Your task to perform on an android device: change the clock display to digital Image 0: 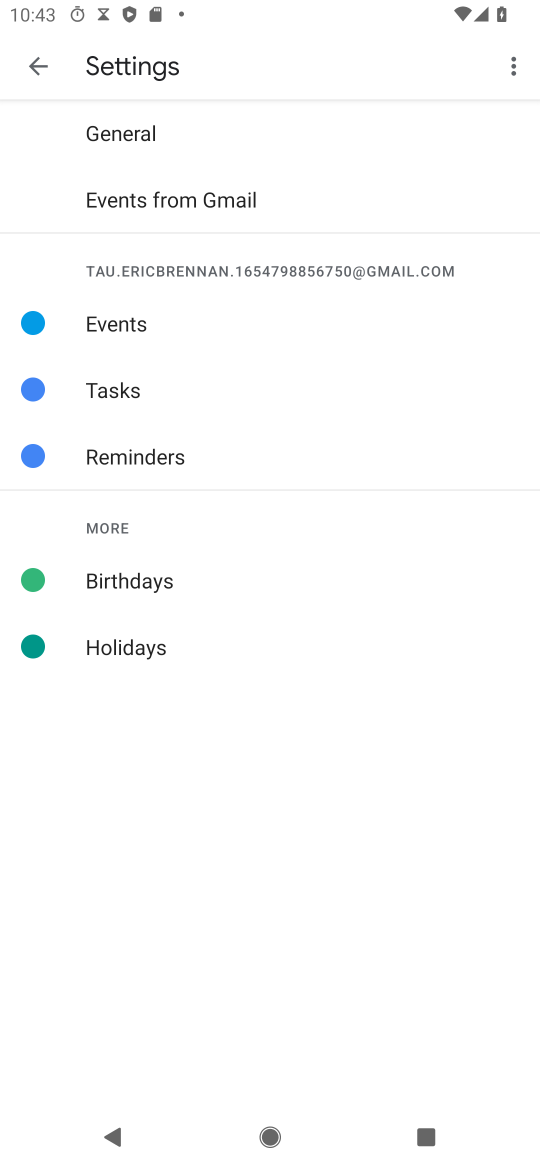
Step 0: press back button
Your task to perform on an android device: change the clock display to digital Image 1: 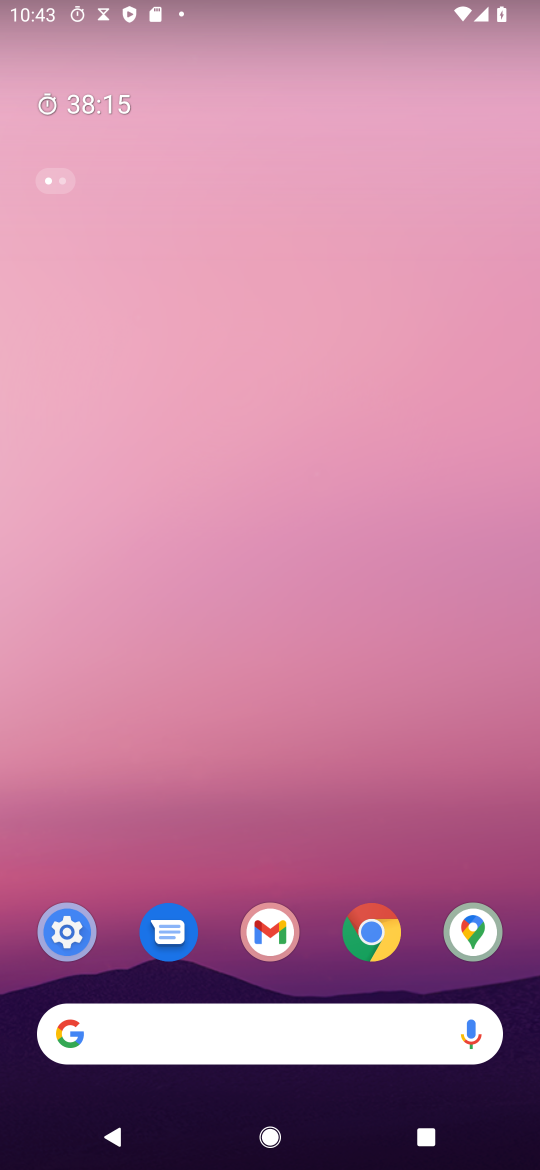
Step 1: drag from (315, 838) to (183, 99)
Your task to perform on an android device: change the clock display to digital Image 2: 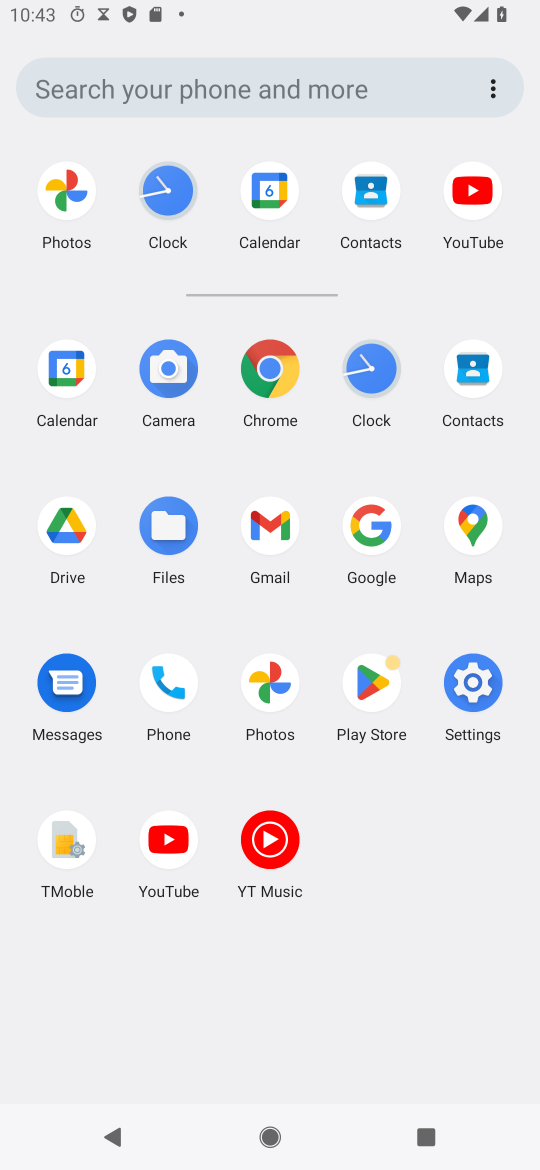
Step 2: click (385, 382)
Your task to perform on an android device: change the clock display to digital Image 3: 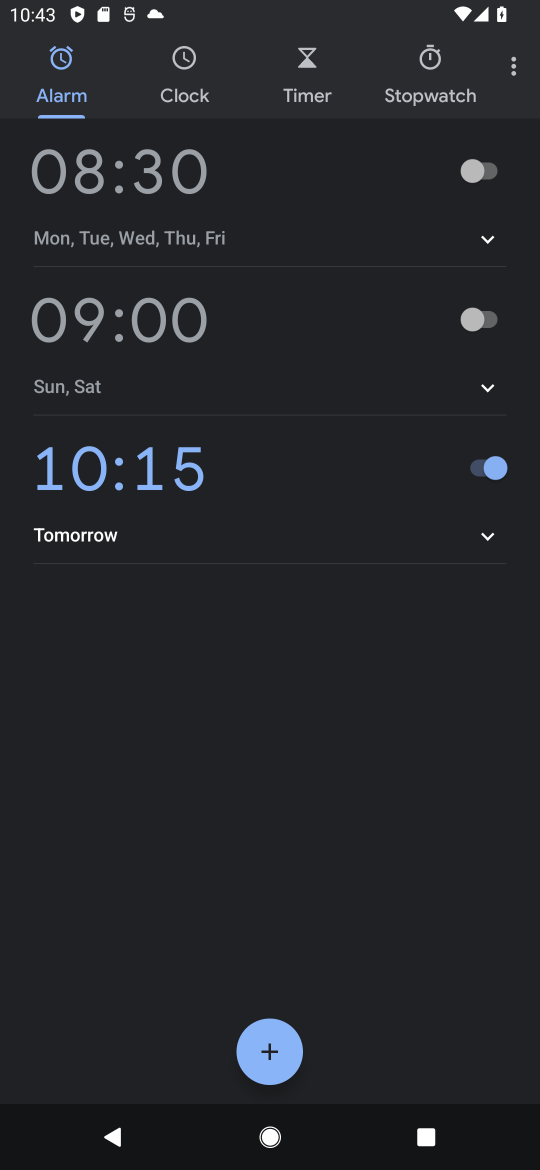
Step 3: click (533, 73)
Your task to perform on an android device: change the clock display to digital Image 4: 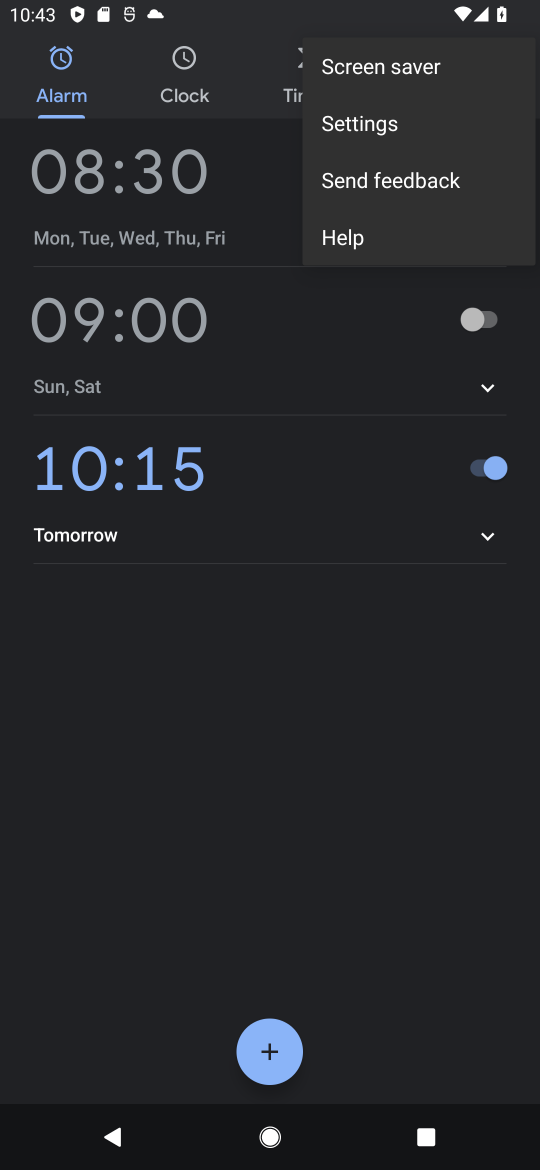
Step 4: click (393, 121)
Your task to perform on an android device: change the clock display to digital Image 5: 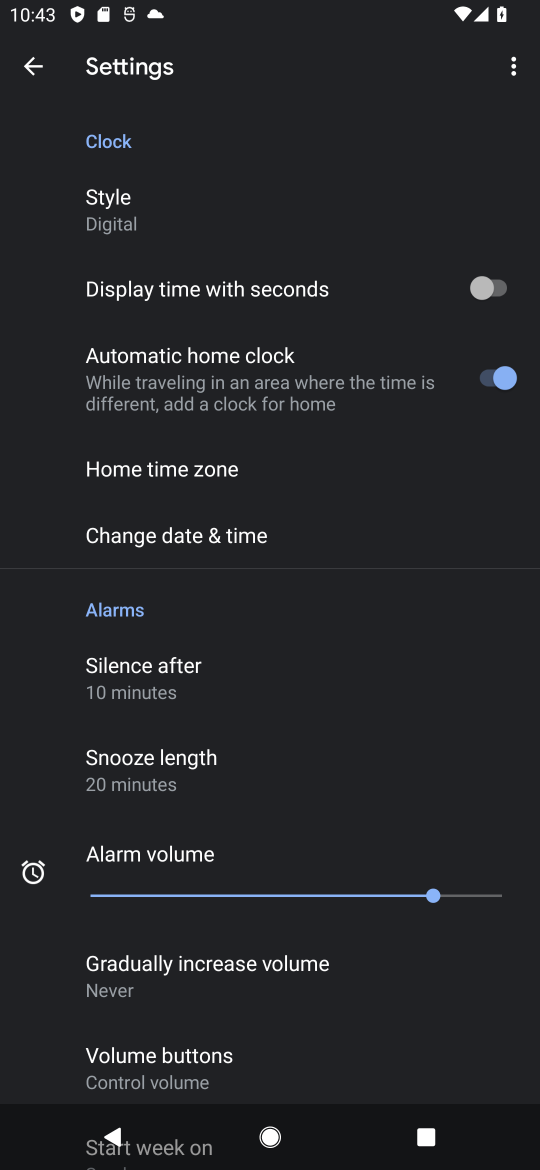
Step 5: click (252, 225)
Your task to perform on an android device: change the clock display to digital Image 6: 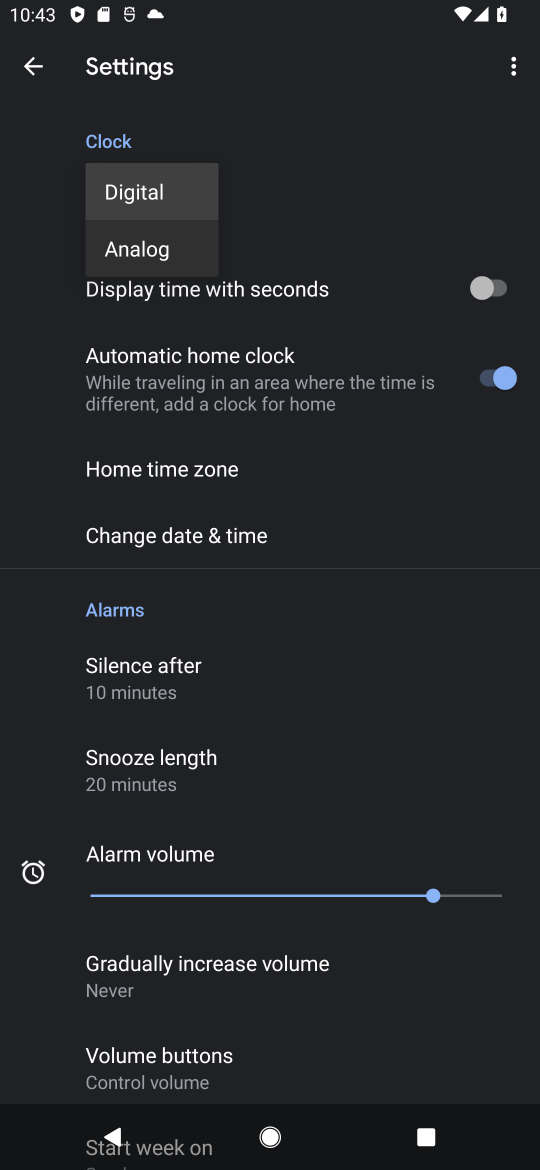
Step 6: task complete